Your task to perform on an android device: Toggle the flashlight Image 0: 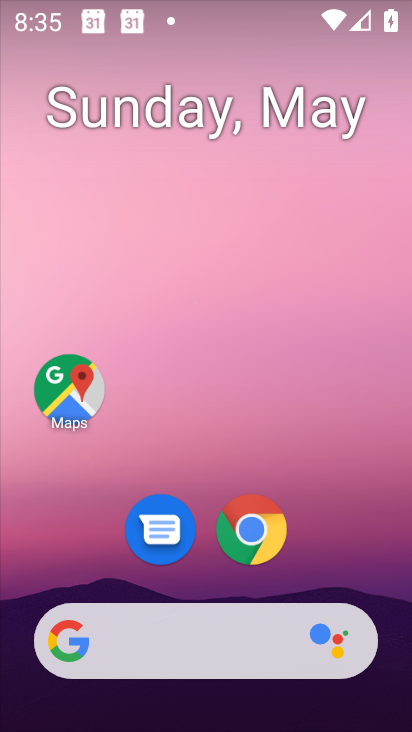
Step 0: drag from (323, 541) to (409, 72)
Your task to perform on an android device: Toggle the flashlight Image 1: 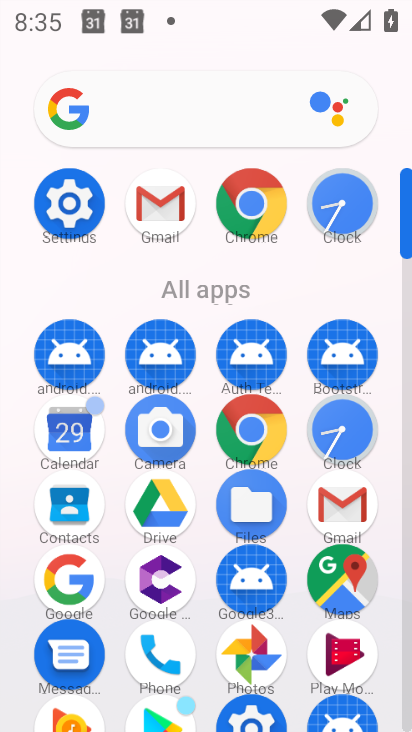
Step 1: click (90, 207)
Your task to perform on an android device: Toggle the flashlight Image 2: 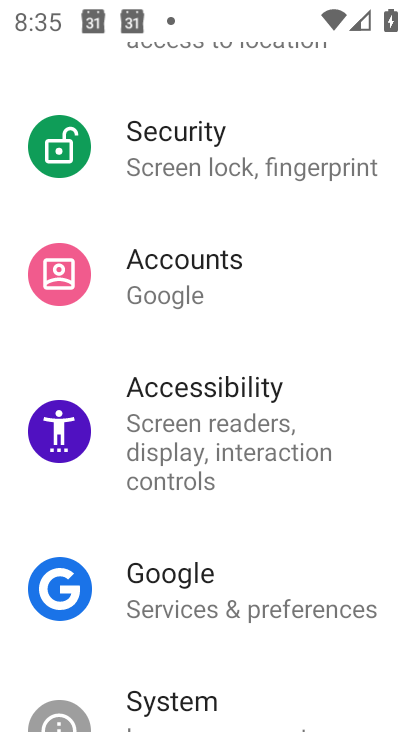
Step 2: task complete